Your task to perform on an android device: Open the calendar app, open the side menu, and click the "Day" option Image 0: 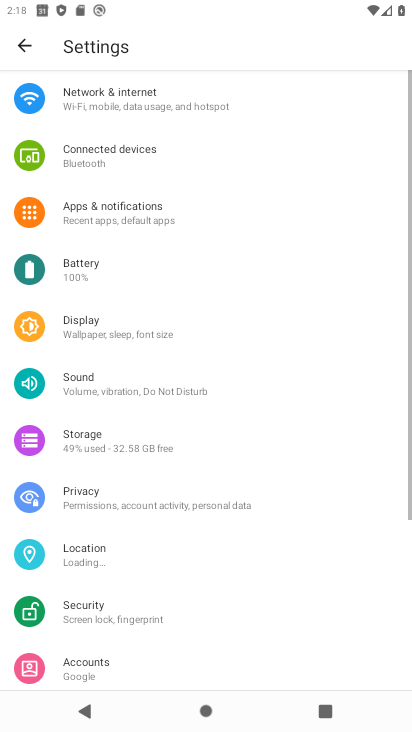
Step 0: press home button
Your task to perform on an android device: Open the calendar app, open the side menu, and click the "Day" option Image 1: 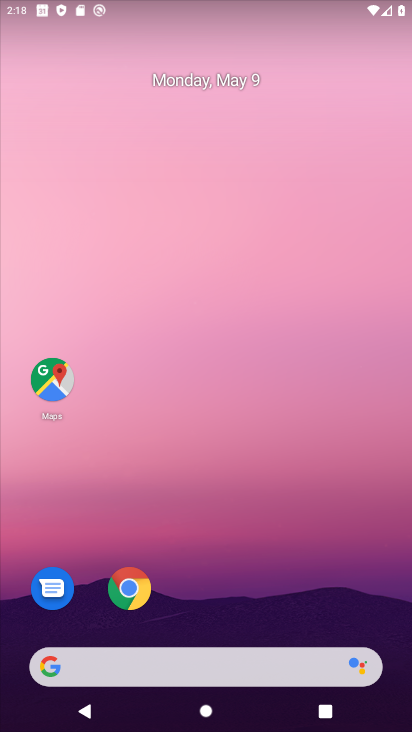
Step 1: drag from (356, 602) to (250, 45)
Your task to perform on an android device: Open the calendar app, open the side menu, and click the "Day" option Image 2: 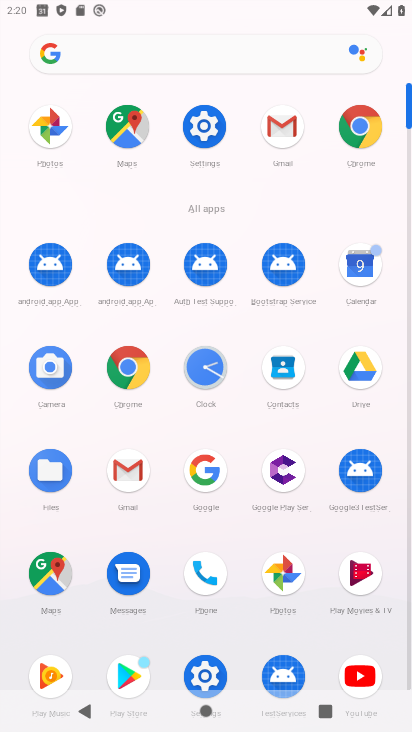
Step 2: click (366, 273)
Your task to perform on an android device: Open the calendar app, open the side menu, and click the "Day" option Image 3: 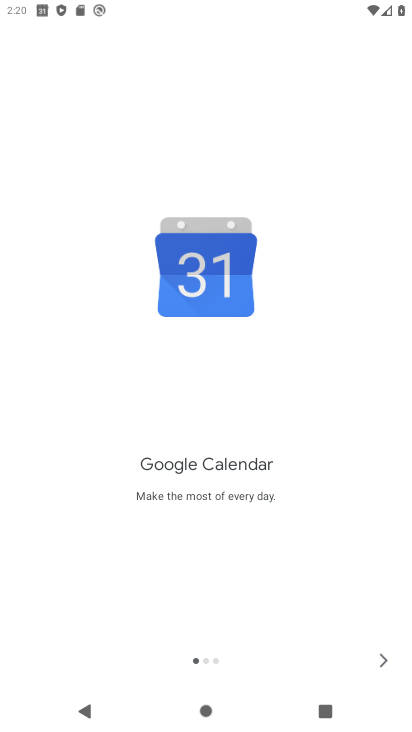
Step 3: click (388, 663)
Your task to perform on an android device: Open the calendar app, open the side menu, and click the "Day" option Image 4: 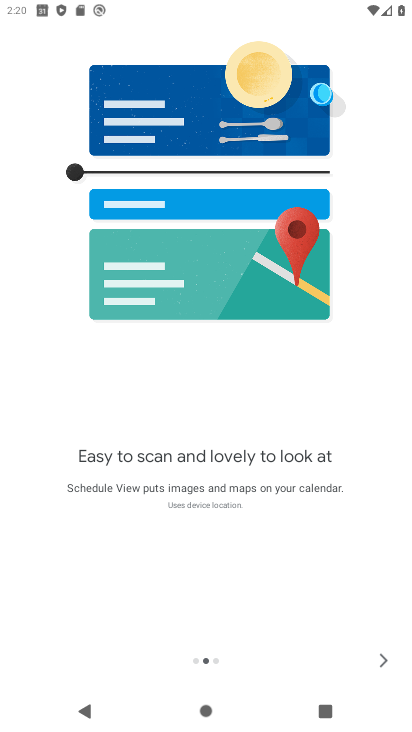
Step 4: click (388, 663)
Your task to perform on an android device: Open the calendar app, open the side menu, and click the "Day" option Image 5: 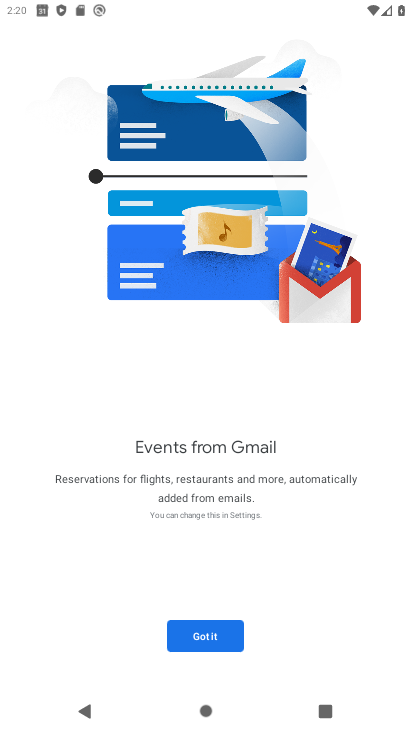
Step 5: click (388, 663)
Your task to perform on an android device: Open the calendar app, open the side menu, and click the "Day" option Image 6: 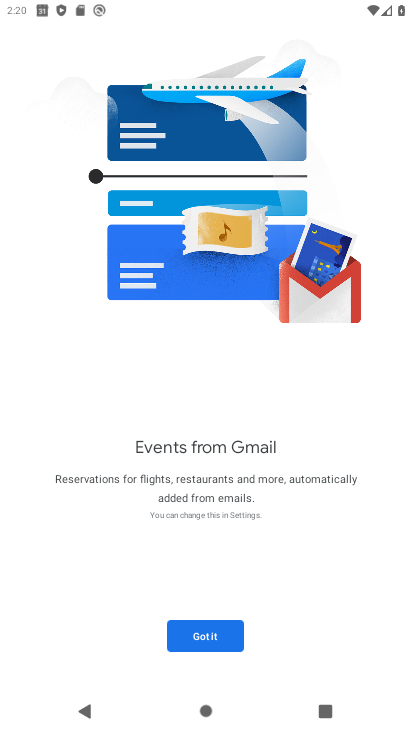
Step 6: click (217, 627)
Your task to perform on an android device: Open the calendar app, open the side menu, and click the "Day" option Image 7: 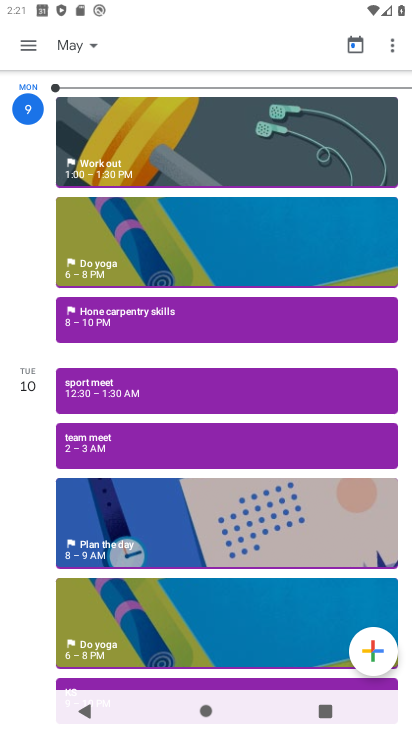
Step 7: click (30, 50)
Your task to perform on an android device: Open the calendar app, open the side menu, and click the "Day" option Image 8: 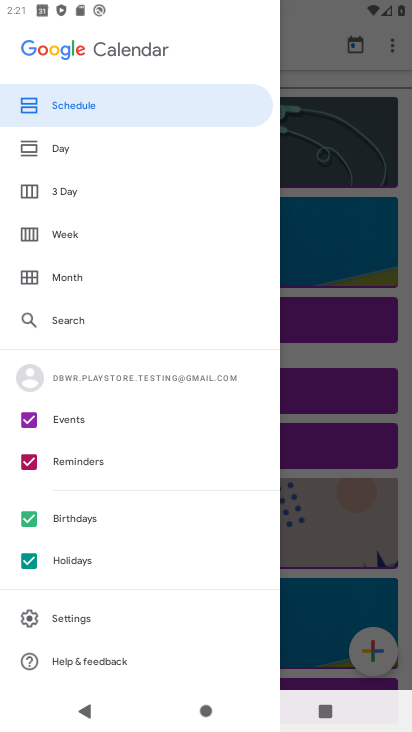
Step 8: click (118, 147)
Your task to perform on an android device: Open the calendar app, open the side menu, and click the "Day" option Image 9: 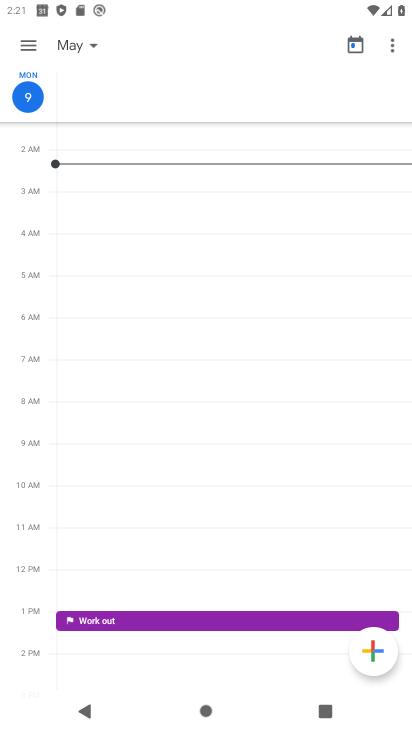
Step 9: task complete